Your task to perform on an android device: delete a single message in the gmail app Image 0: 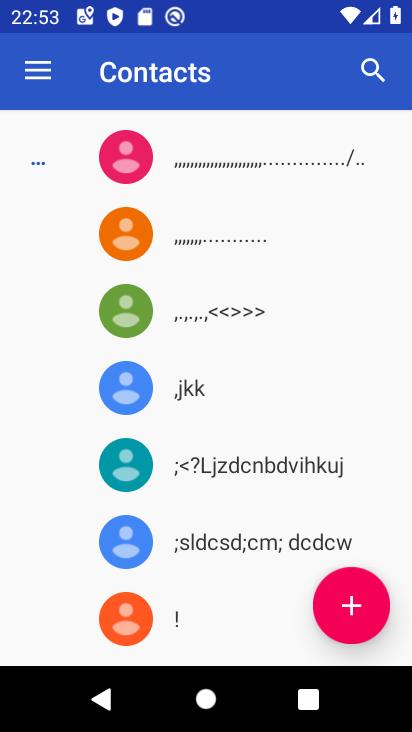
Step 0: press home button
Your task to perform on an android device: delete a single message in the gmail app Image 1: 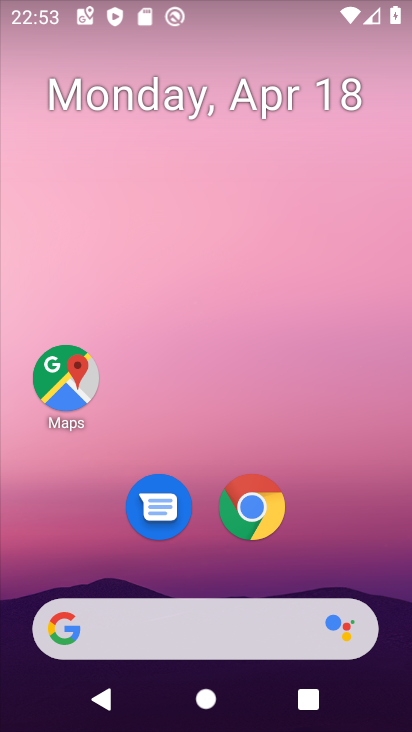
Step 1: drag from (329, 507) to (341, 74)
Your task to perform on an android device: delete a single message in the gmail app Image 2: 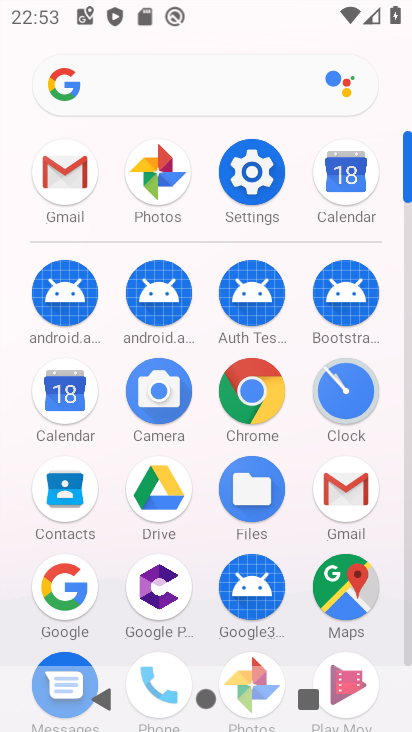
Step 2: click (65, 180)
Your task to perform on an android device: delete a single message in the gmail app Image 3: 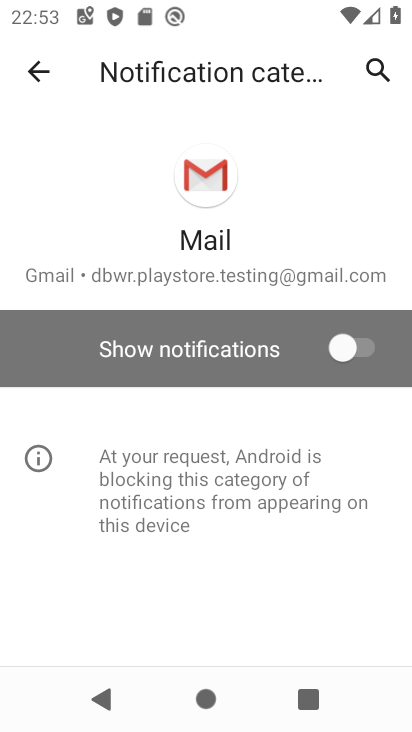
Step 3: click (33, 66)
Your task to perform on an android device: delete a single message in the gmail app Image 4: 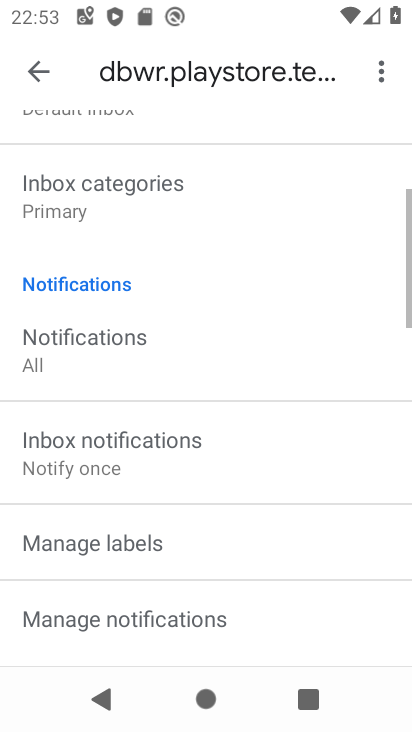
Step 4: click (33, 67)
Your task to perform on an android device: delete a single message in the gmail app Image 5: 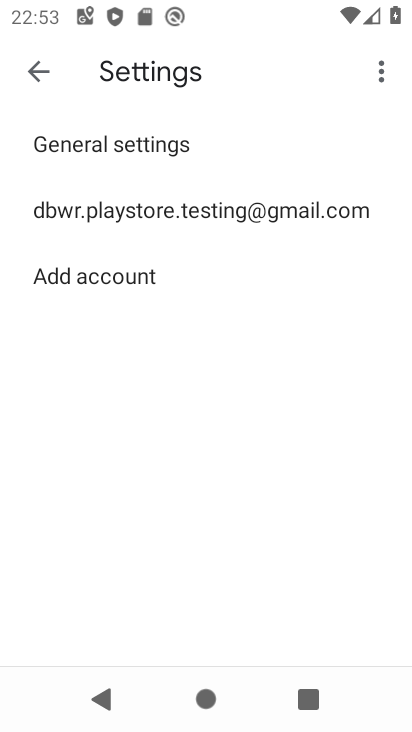
Step 5: click (33, 67)
Your task to perform on an android device: delete a single message in the gmail app Image 6: 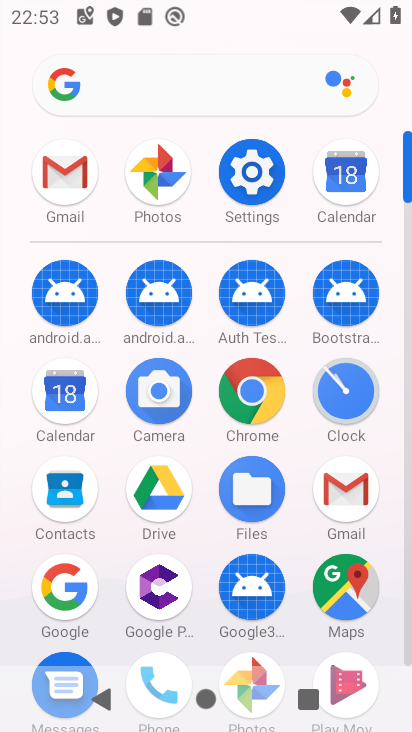
Step 6: click (64, 167)
Your task to perform on an android device: delete a single message in the gmail app Image 7: 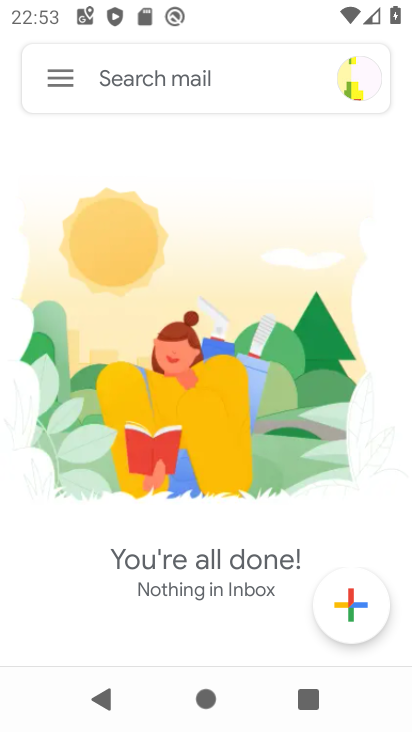
Step 7: click (59, 78)
Your task to perform on an android device: delete a single message in the gmail app Image 8: 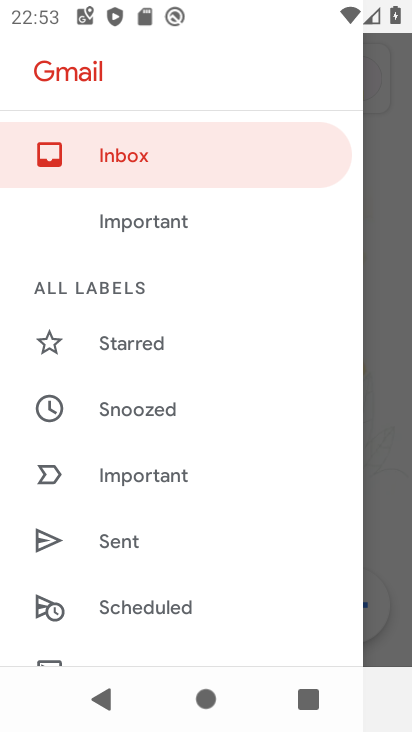
Step 8: drag from (188, 528) to (193, 197)
Your task to perform on an android device: delete a single message in the gmail app Image 9: 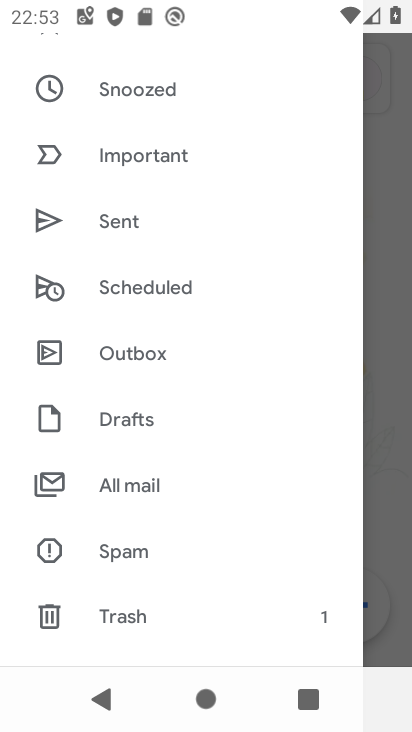
Step 9: click (162, 484)
Your task to perform on an android device: delete a single message in the gmail app Image 10: 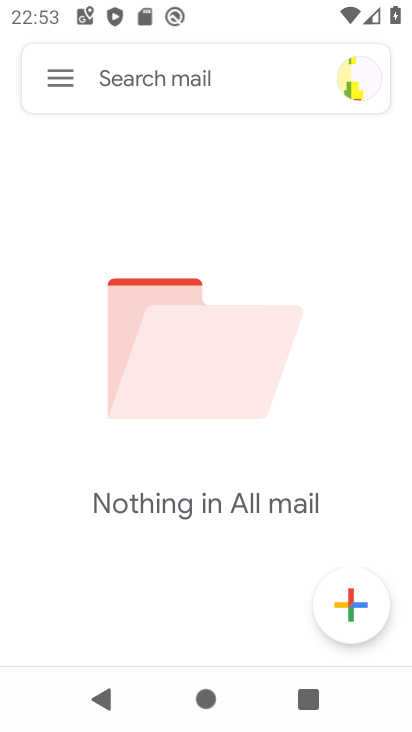
Step 10: task complete